Your task to perform on an android device: Go to settings Image 0: 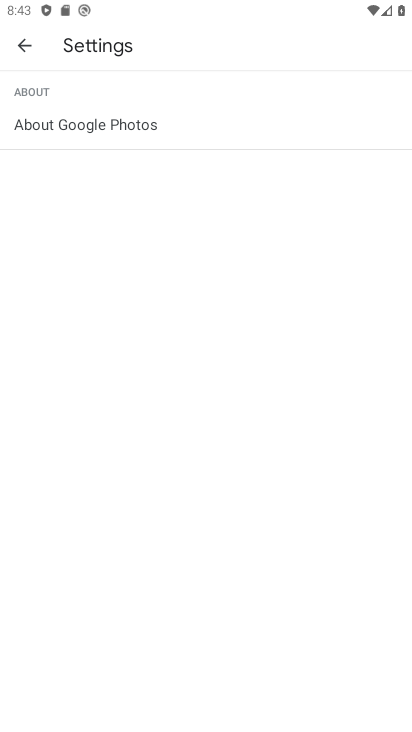
Step 0: press home button
Your task to perform on an android device: Go to settings Image 1: 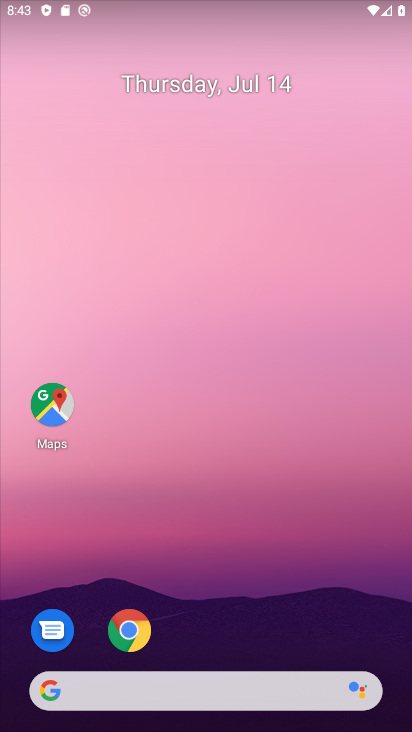
Step 1: drag from (214, 653) to (179, 220)
Your task to perform on an android device: Go to settings Image 2: 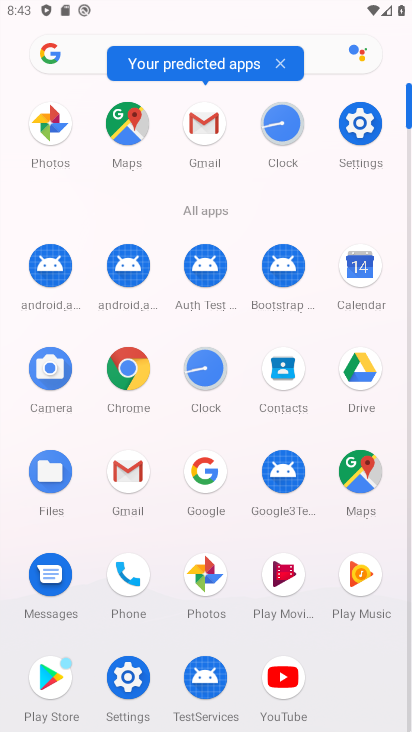
Step 2: click (352, 126)
Your task to perform on an android device: Go to settings Image 3: 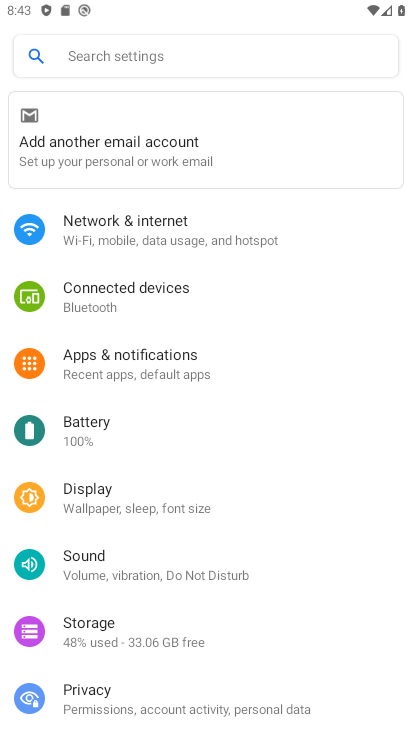
Step 3: task complete